Your task to perform on an android device: Open Wikipedia Image 0: 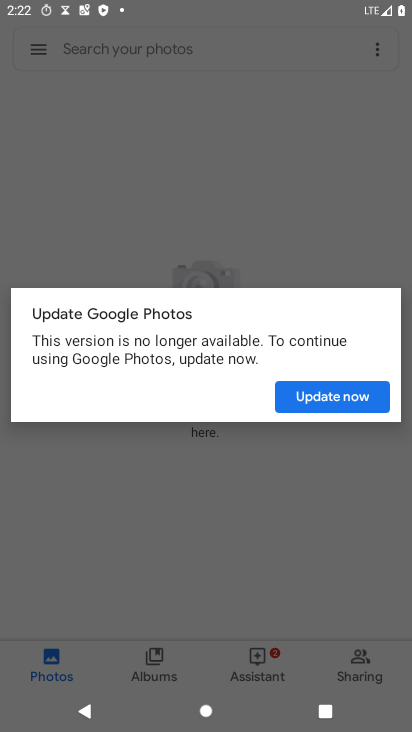
Step 0: press home button
Your task to perform on an android device: Open Wikipedia Image 1: 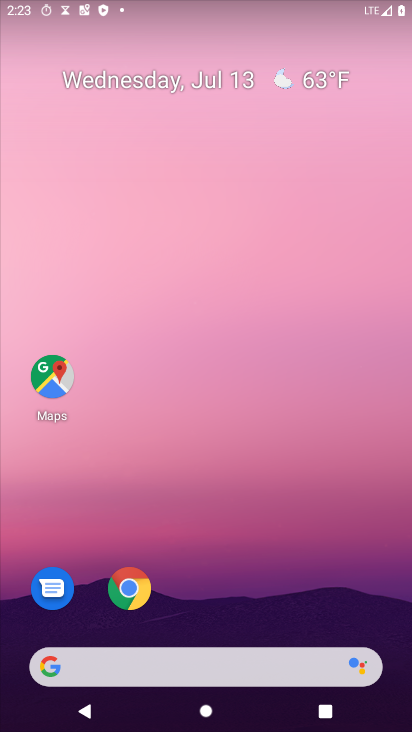
Step 1: click (118, 572)
Your task to perform on an android device: Open Wikipedia Image 2: 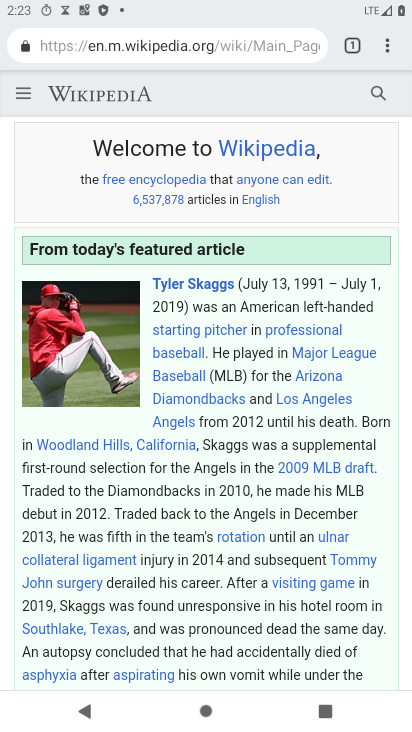
Step 2: task complete